Your task to perform on an android device: toggle translation in the chrome app Image 0: 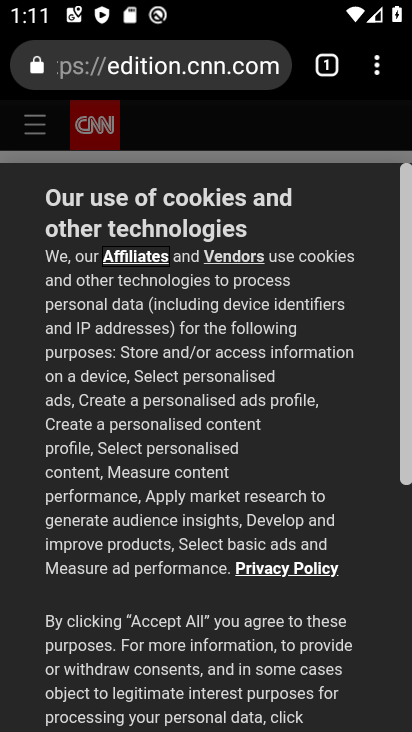
Step 0: press home button
Your task to perform on an android device: toggle translation in the chrome app Image 1: 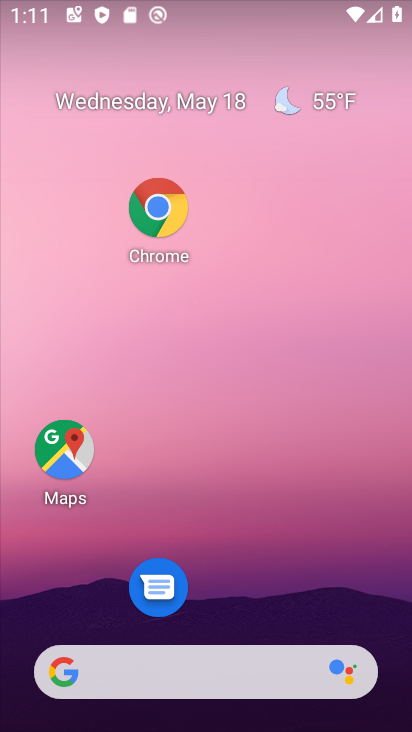
Step 1: click (161, 232)
Your task to perform on an android device: toggle translation in the chrome app Image 2: 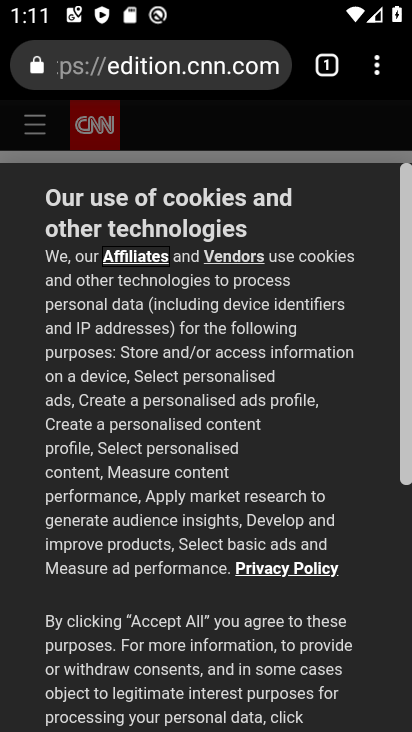
Step 2: click (380, 69)
Your task to perform on an android device: toggle translation in the chrome app Image 3: 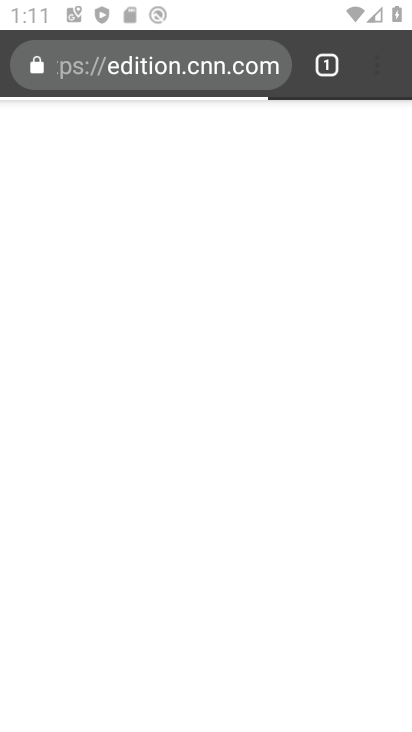
Step 3: click (385, 70)
Your task to perform on an android device: toggle translation in the chrome app Image 4: 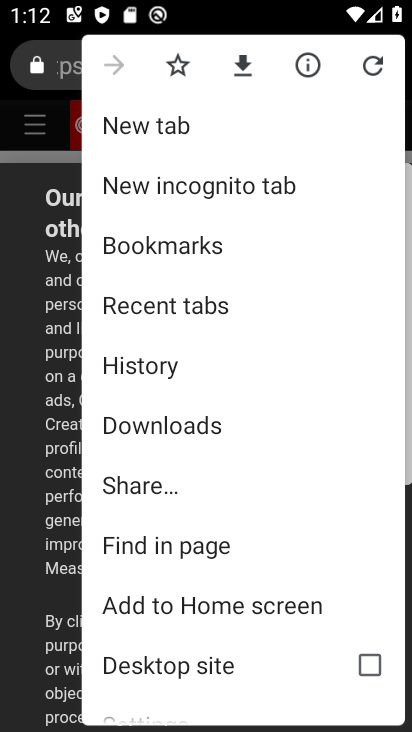
Step 4: drag from (252, 679) to (243, 270)
Your task to perform on an android device: toggle translation in the chrome app Image 5: 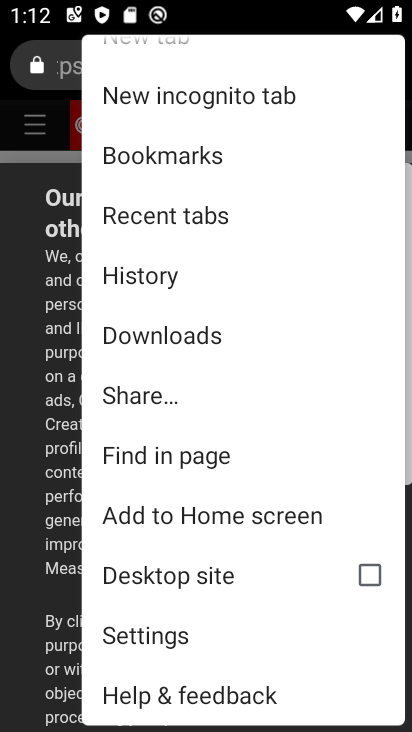
Step 5: click (162, 637)
Your task to perform on an android device: toggle translation in the chrome app Image 6: 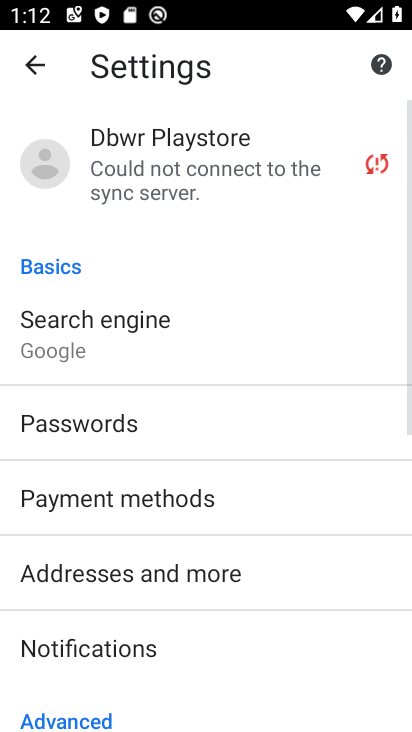
Step 6: drag from (164, 663) to (123, 374)
Your task to perform on an android device: toggle translation in the chrome app Image 7: 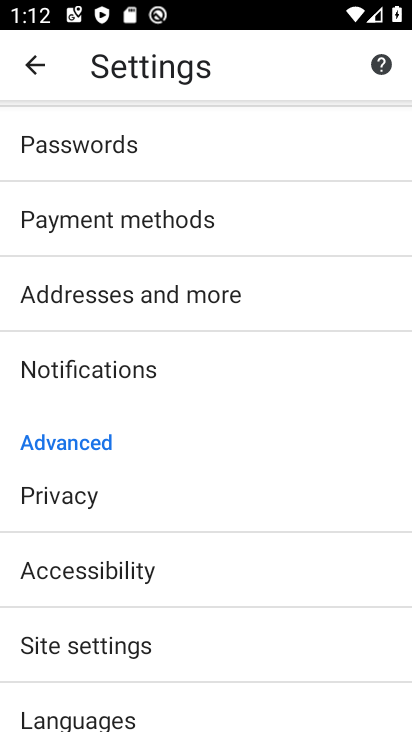
Step 7: click (97, 710)
Your task to perform on an android device: toggle translation in the chrome app Image 8: 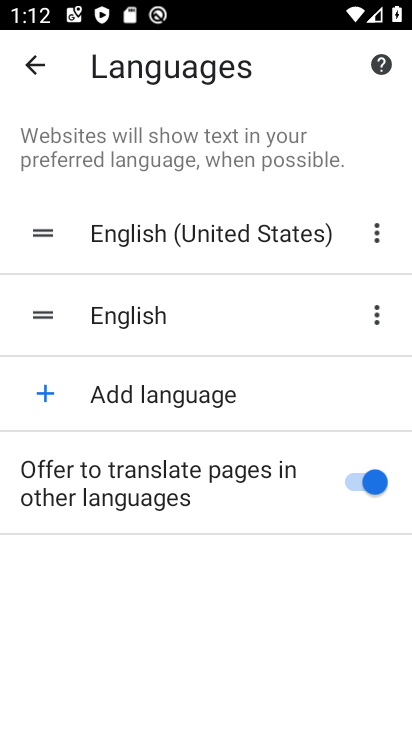
Step 8: click (355, 482)
Your task to perform on an android device: toggle translation in the chrome app Image 9: 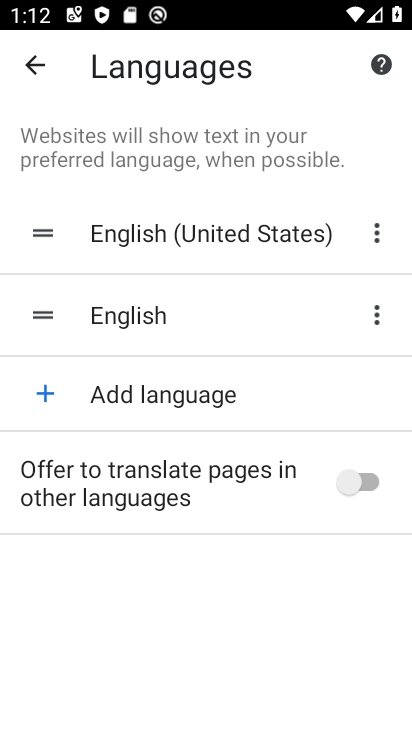
Step 9: task complete